Your task to perform on an android device: manage bookmarks in the chrome app Image 0: 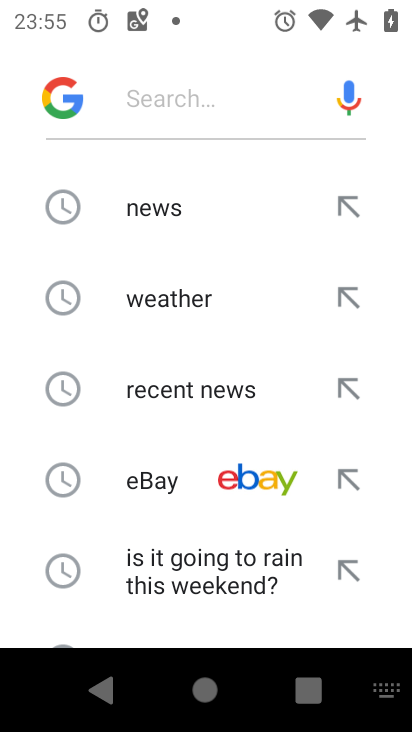
Step 0: press home button
Your task to perform on an android device: manage bookmarks in the chrome app Image 1: 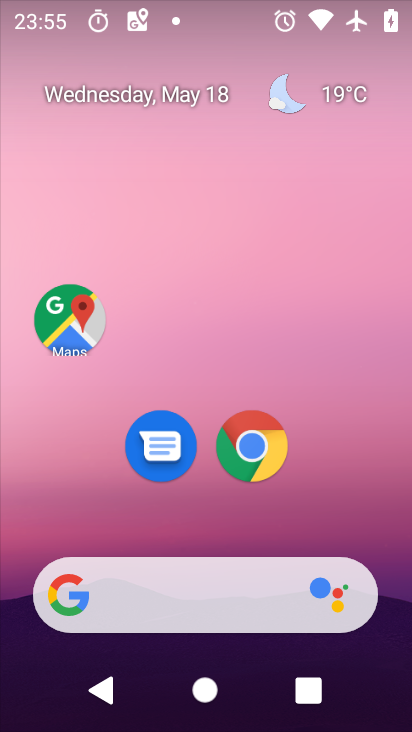
Step 1: click (247, 455)
Your task to perform on an android device: manage bookmarks in the chrome app Image 2: 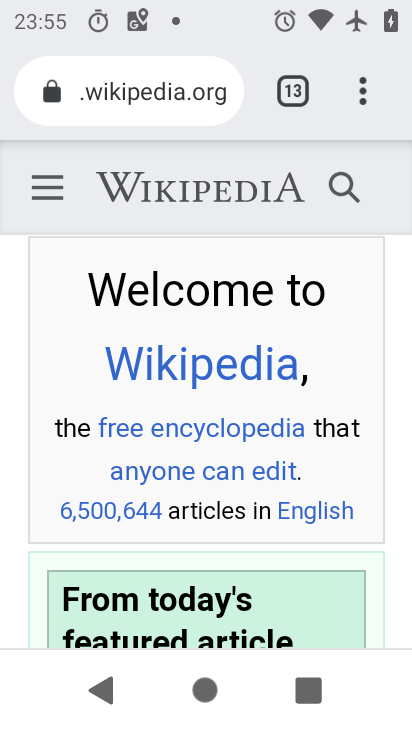
Step 2: task complete